Your task to perform on an android device: empty trash in google photos Image 0: 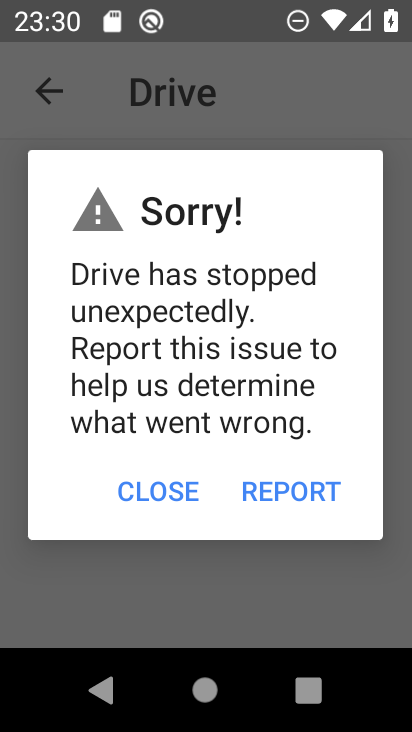
Step 0: press home button
Your task to perform on an android device: empty trash in google photos Image 1: 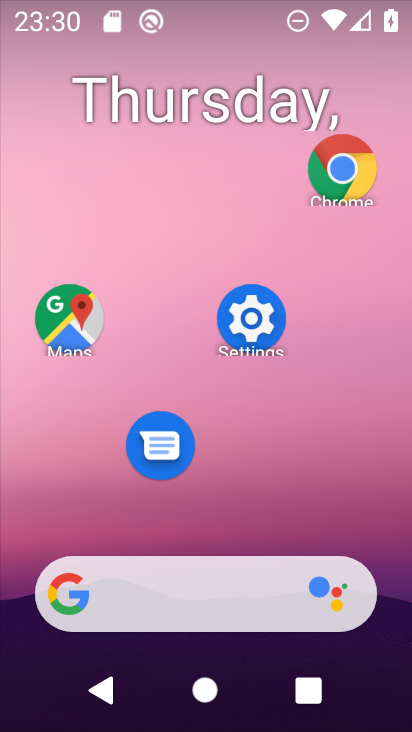
Step 1: drag from (214, 516) to (176, 104)
Your task to perform on an android device: empty trash in google photos Image 2: 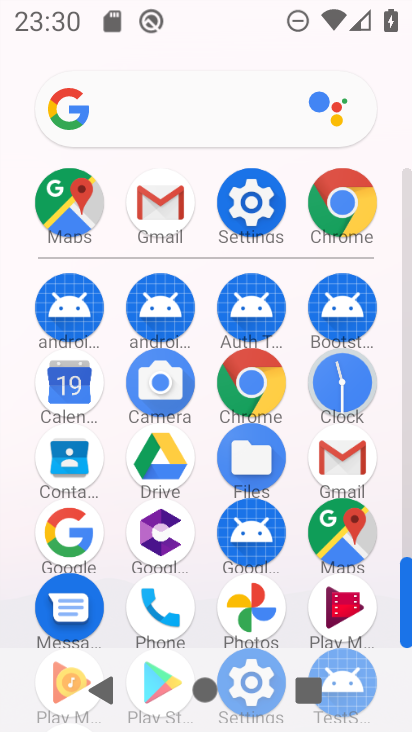
Step 2: click (242, 589)
Your task to perform on an android device: empty trash in google photos Image 3: 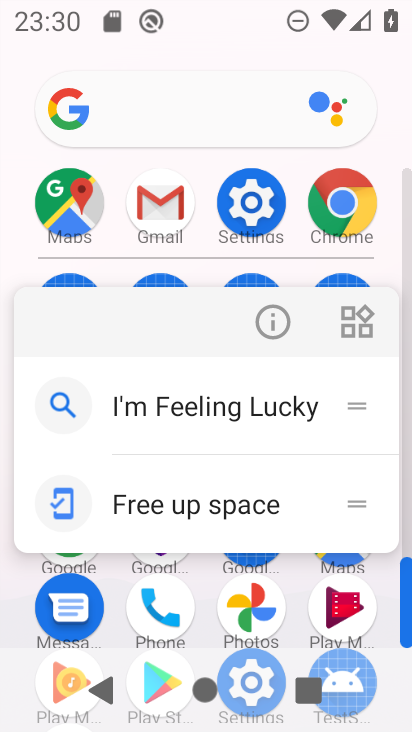
Step 3: click (272, 325)
Your task to perform on an android device: empty trash in google photos Image 4: 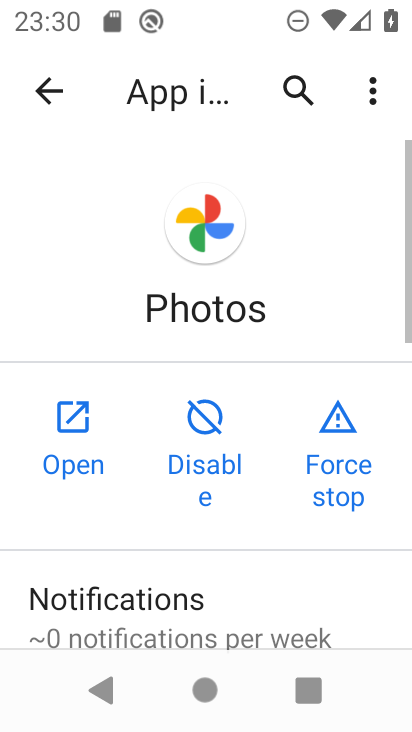
Step 4: click (87, 414)
Your task to perform on an android device: empty trash in google photos Image 5: 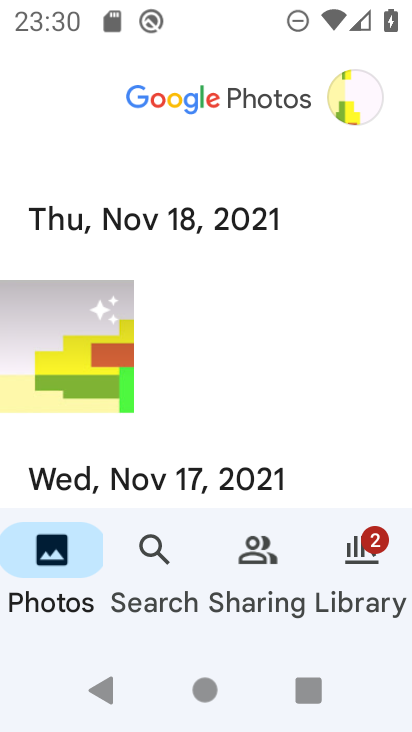
Step 5: drag from (213, 464) to (208, 44)
Your task to perform on an android device: empty trash in google photos Image 6: 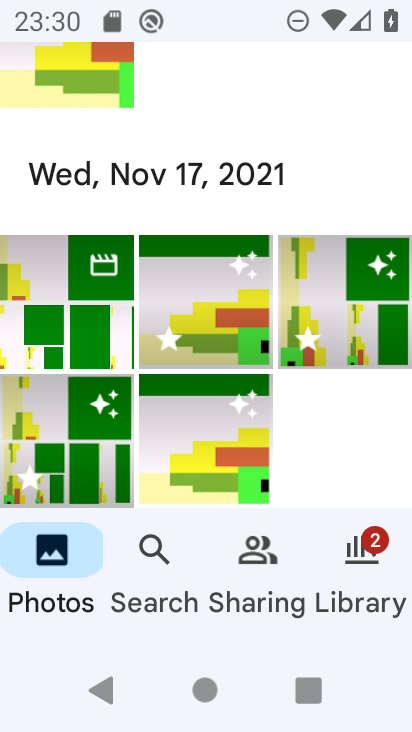
Step 6: click (383, 584)
Your task to perform on an android device: empty trash in google photos Image 7: 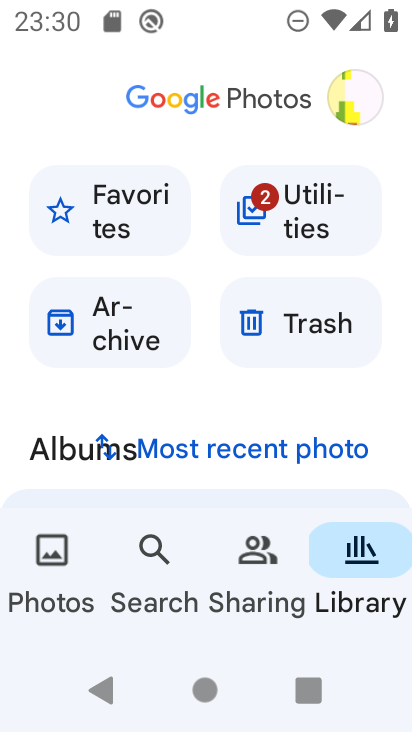
Step 7: click (311, 328)
Your task to perform on an android device: empty trash in google photos Image 8: 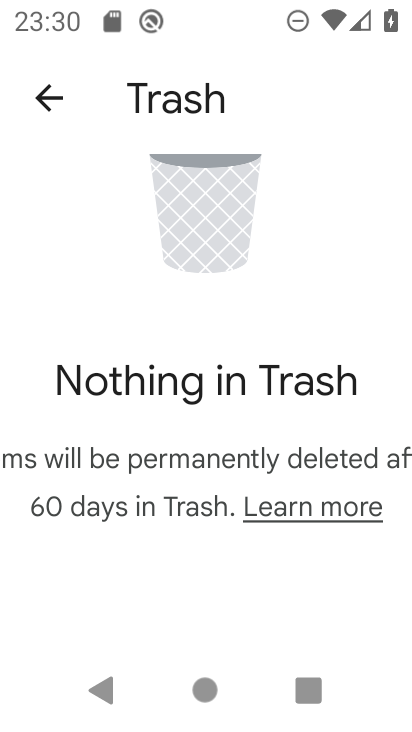
Step 8: task complete